Your task to perform on an android device: turn notification dots on Image 0: 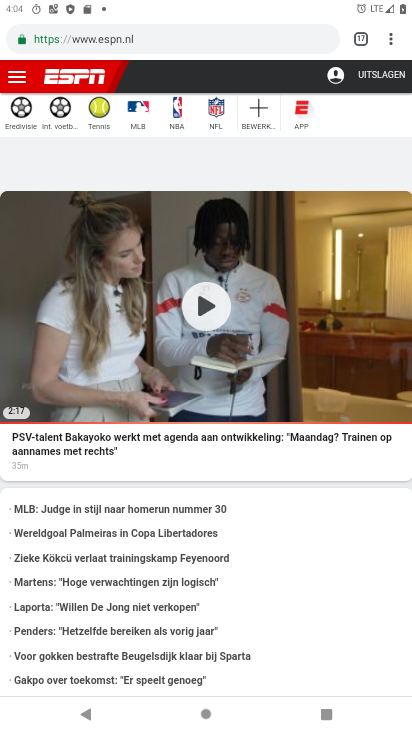
Step 0: press home button
Your task to perform on an android device: turn notification dots on Image 1: 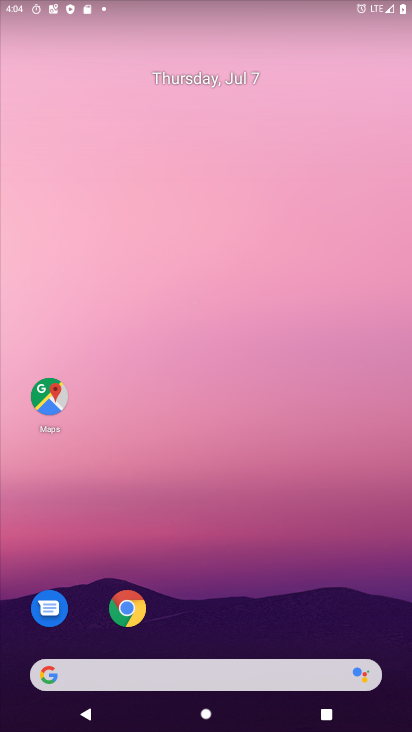
Step 1: drag from (247, 715) to (234, 100)
Your task to perform on an android device: turn notification dots on Image 2: 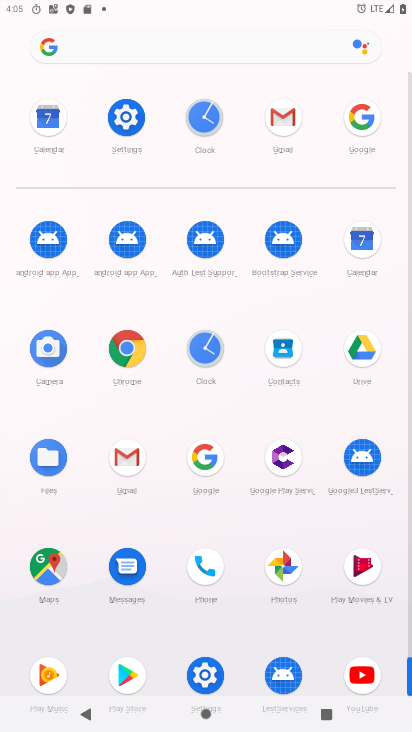
Step 2: click (118, 121)
Your task to perform on an android device: turn notification dots on Image 3: 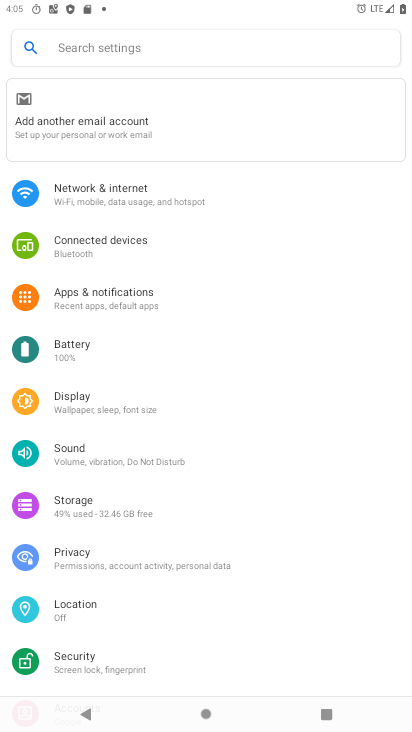
Step 3: click (94, 295)
Your task to perform on an android device: turn notification dots on Image 4: 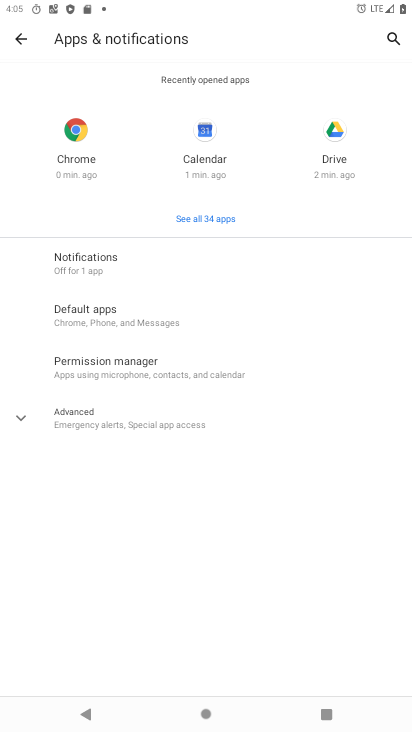
Step 4: click (81, 259)
Your task to perform on an android device: turn notification dots on Image 5: 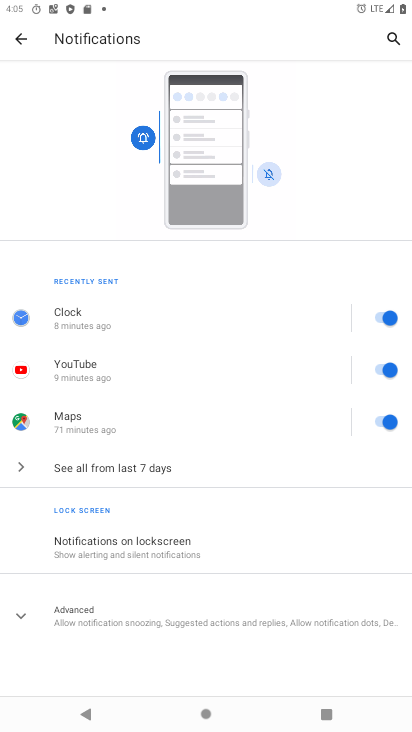
Step 5: drag from (146, 641) to (145, 395)
Your task to perform on an android device: turn notification dots on Image 6: 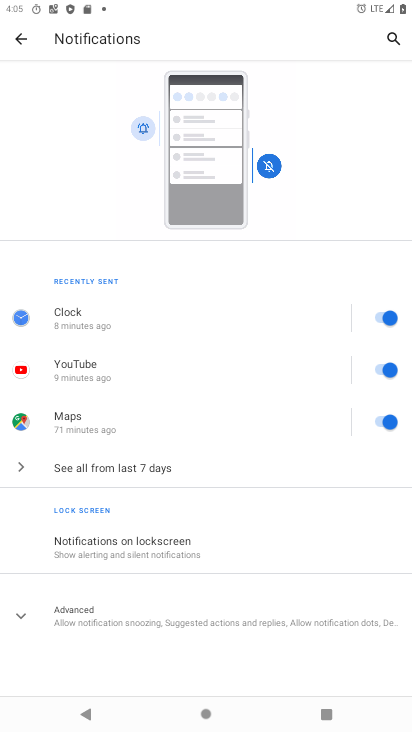
Step 6: click (71, 610)
Your task to perform on an android device: turn notification dots on Image 7: 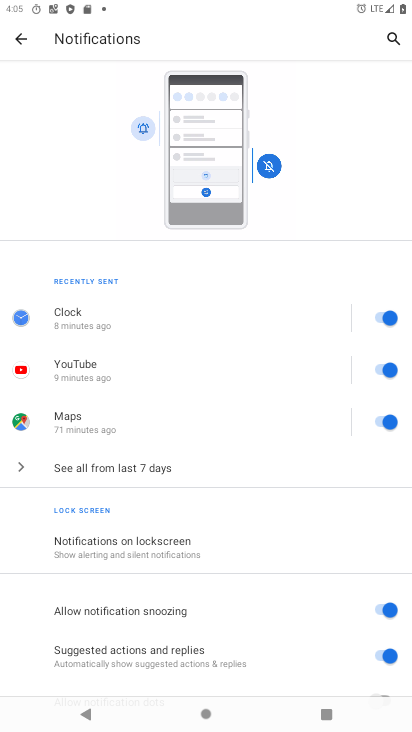
Step 7: drag from (173, 648) to (175, 270)
Your task to perform on an android device: turn notification dots on Image 8: 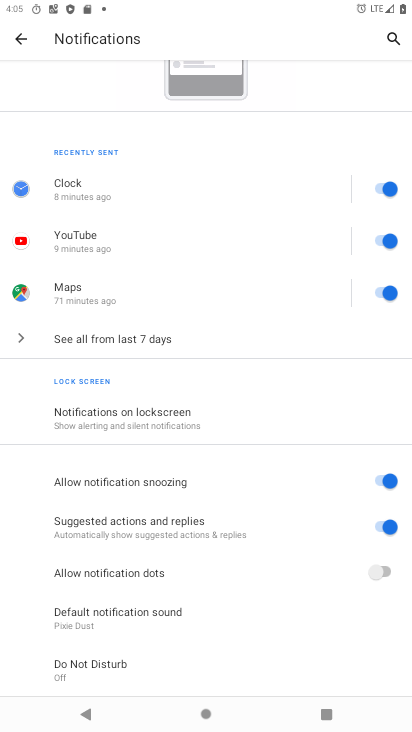
Step 8: click (390, 570)
Your task to perform on an android device: turn notification dots on Image 9: 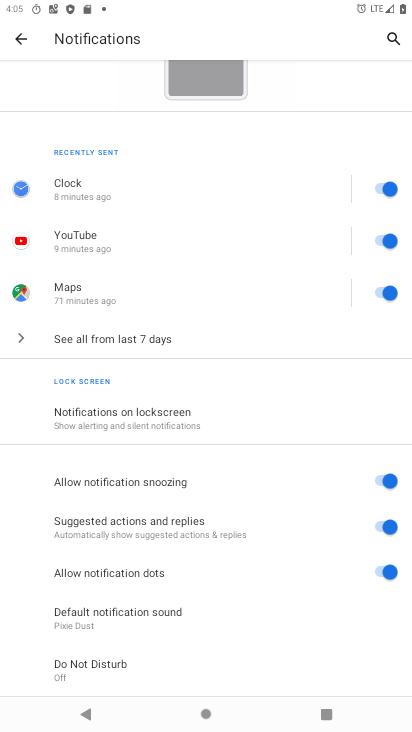
Step 9: task complete